Your task to perform on an android device: turn on notifications settings in the gmail app Image 0: 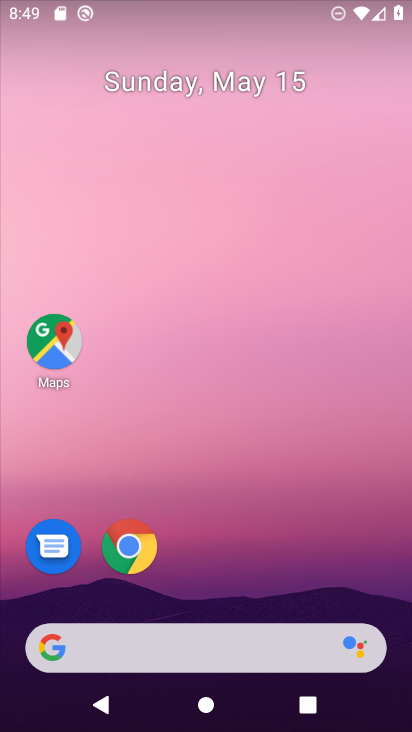
Step 0: drag from (270, 525) to (249, 46)
Your task to perform on an android device: turn on notifications settings in the gmail app Image 1: 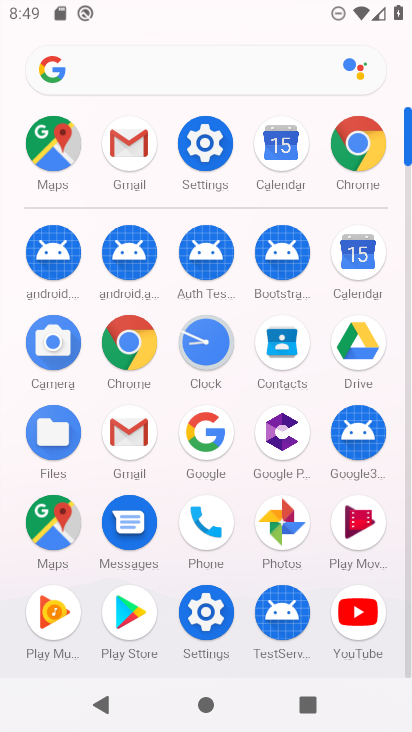
Step 1: click (118, 133)
Your task to perform on an android device: turn on notifications settings in the gmail app Image 2: 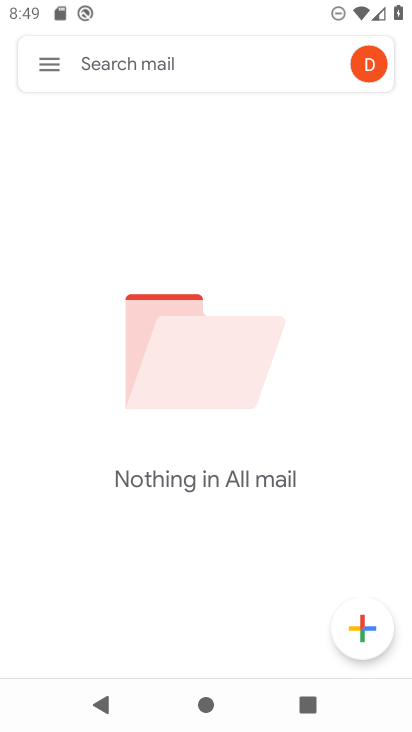
Step 2: click (49, 60)
Your task to perform on an android device: turn on notifications settings in the gmail app Image 3: 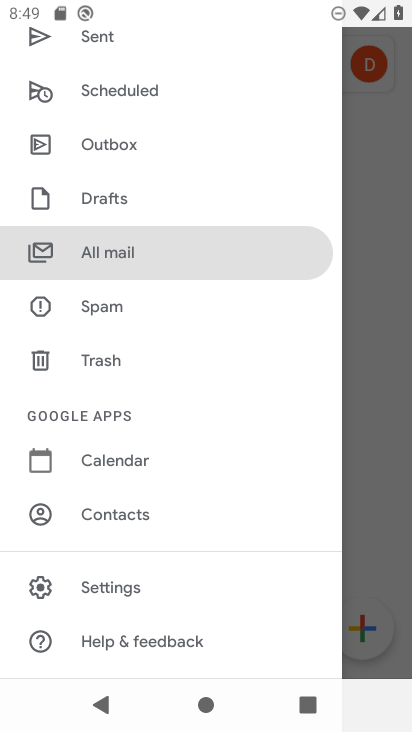
Step 3: click (195, 580)
Your task to perform on an android device: turn on notifications settings in the gmail app Image 4: 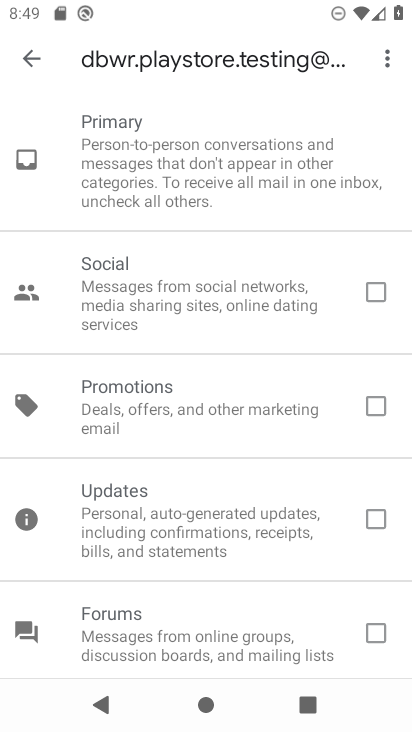
Step 4: click (29, 50)
Your task to perform on an android device: turn on notifications settings in the gmail app Image 5: 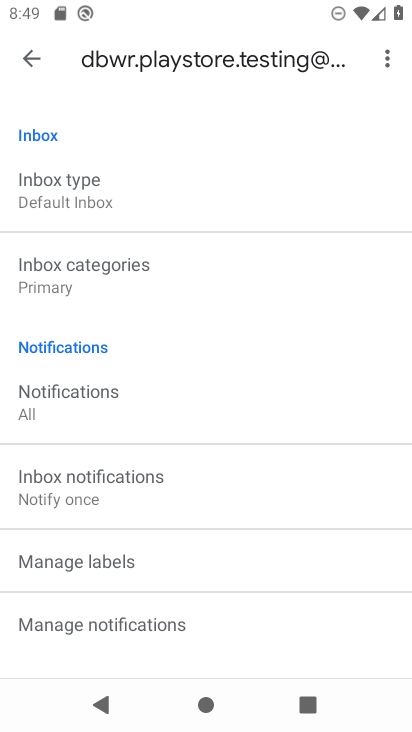
Step 5: click (200, 621)
Your task to perform on an android device: turn on notifications settings in the gmail app Image 6: 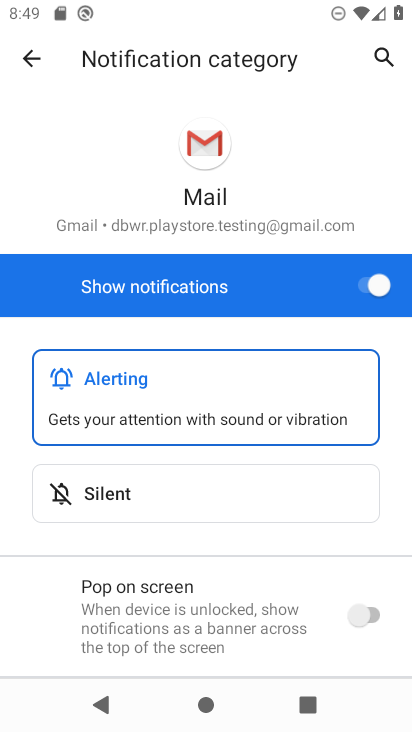
Step 6: task complete